Your task to perform on an android device: Play the last video I watched on Youtube Image 0: 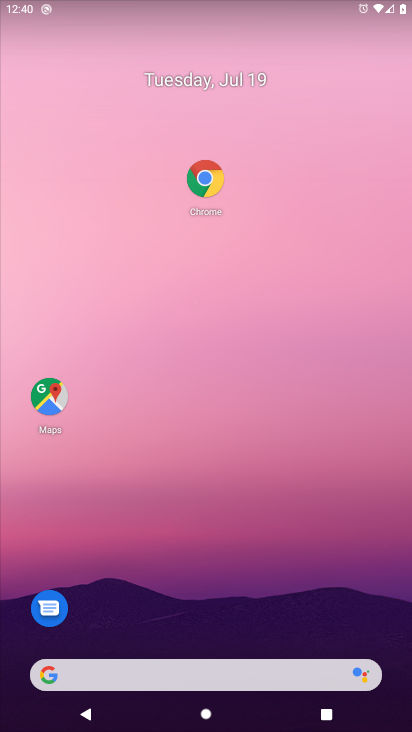
Step 0: drag from (56, 673) to (320, 4)
Your task to perform on an android device: Play the last video I watched on Youtube Image 1: 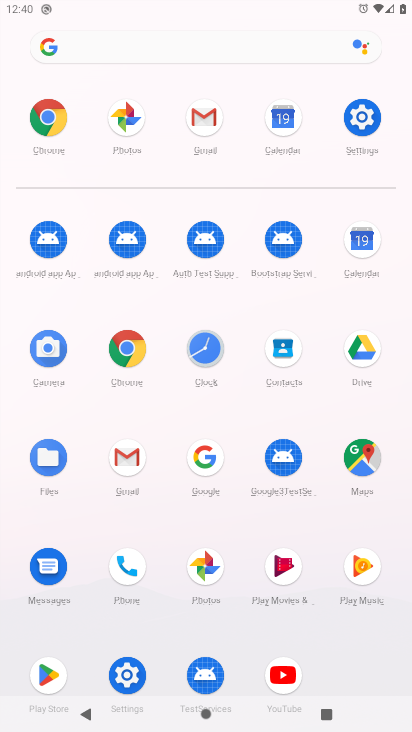
Step 1: click (277, 668)
Your task to perform on an android device: Play the last video I watched on Youtube Image 2: 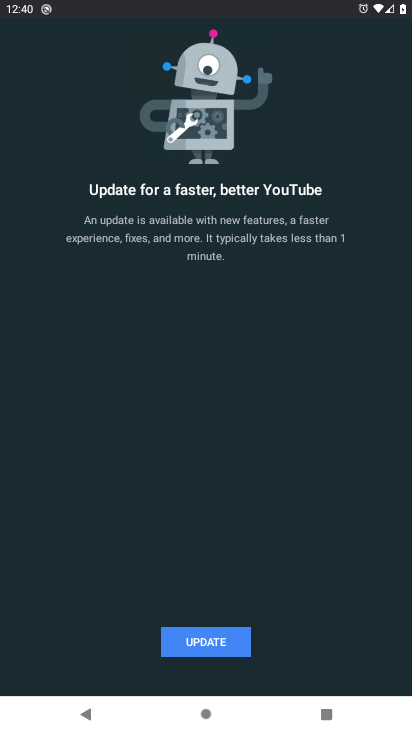
Step 2: click (283, 678)
Your task to perform on an android device: Play the last video I watched on Youtube Image 3: 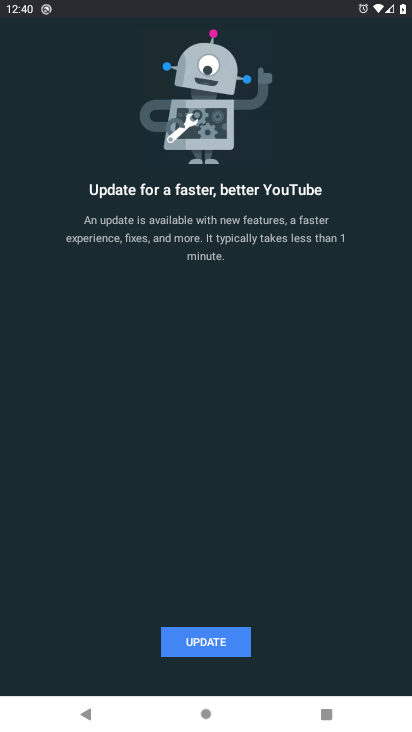
Step 3: click (197, 641)
Your task to perform on an android device: Play the last video I watched on Youtube Image 4: 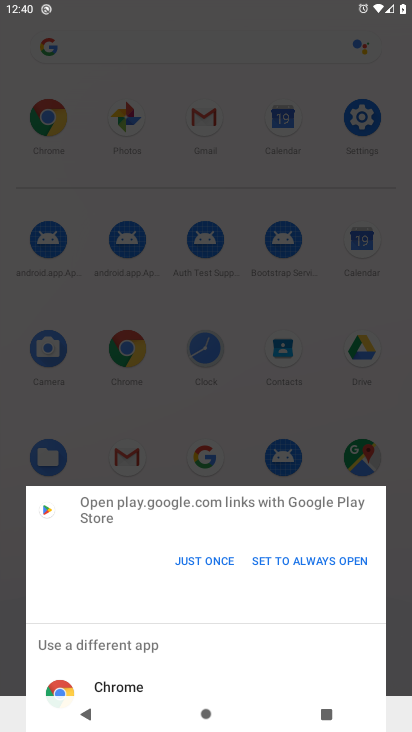
Step 4: click (211, 553)
Your task to perform on an android device: Play the last video I watched on Youtube Image 5: 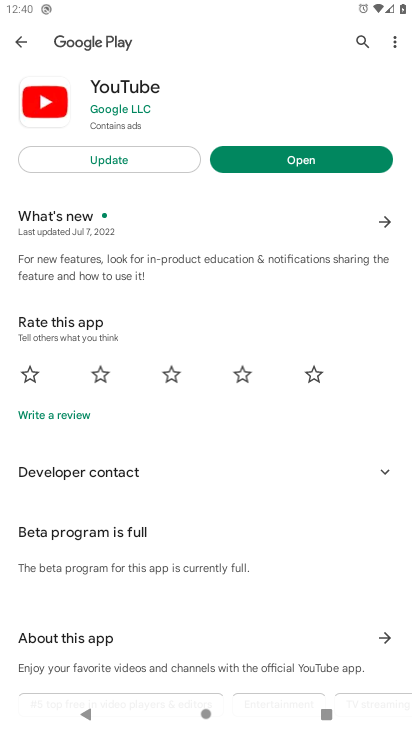
Step 5: click (263, 158)
Your task to perform on an android device: Play the last video I watched on Youtube Image 6: 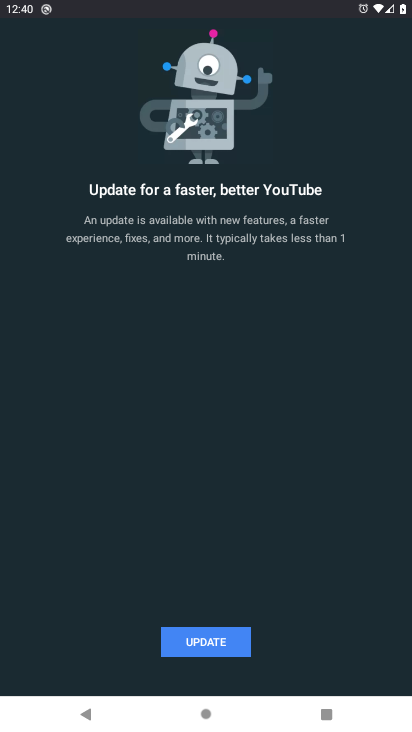
Step 6: task complete